Your task to perform on an android device: turn off notifications settings in the gmail app Image 0: 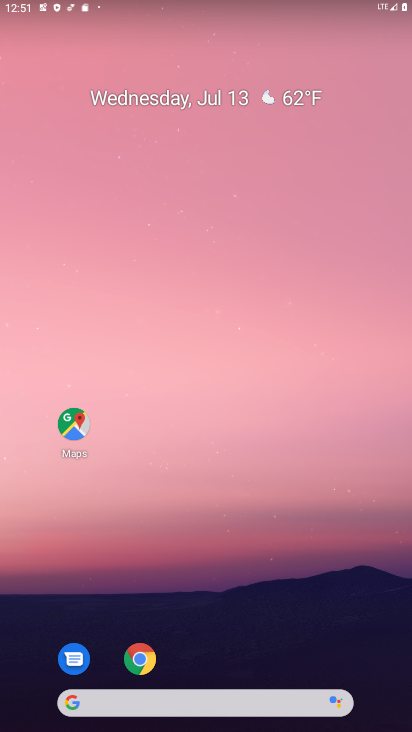
Step 0: drag from (202, 729) to (221, 54)
Your task to perform on an android device: turn off notifications settings in the gmail app Image 1: 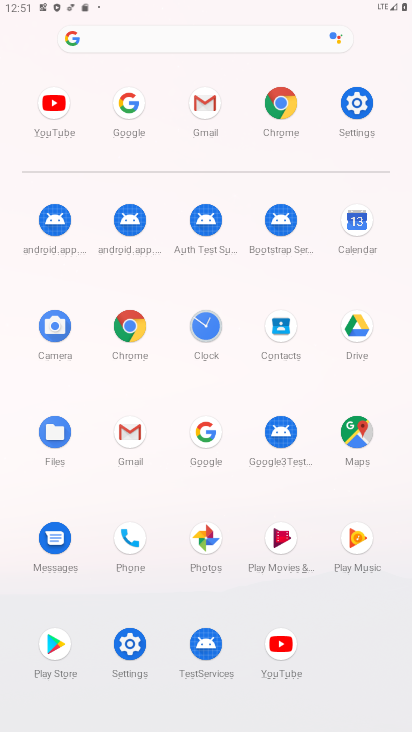
Step 1: click (129, 433)
Your task to perform on an android device: turn off notifications settings in the gmail app Image 2: 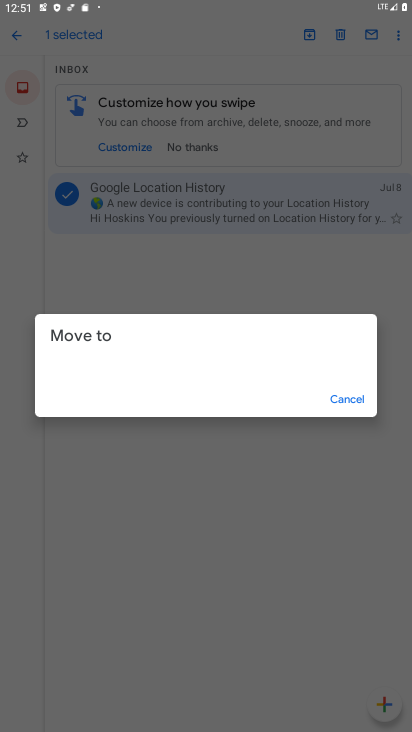
Step 2: click (354, 399)
Your task to perform on an android device: turn off notifications settings in the gmail app Image 3: 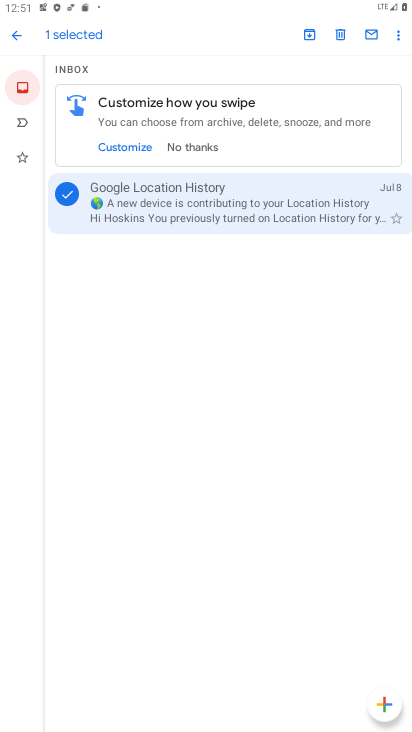
Step 3: click (18, 33)
Your task to perform on an android device: turn off notifications settings in the gmail app Image 4: 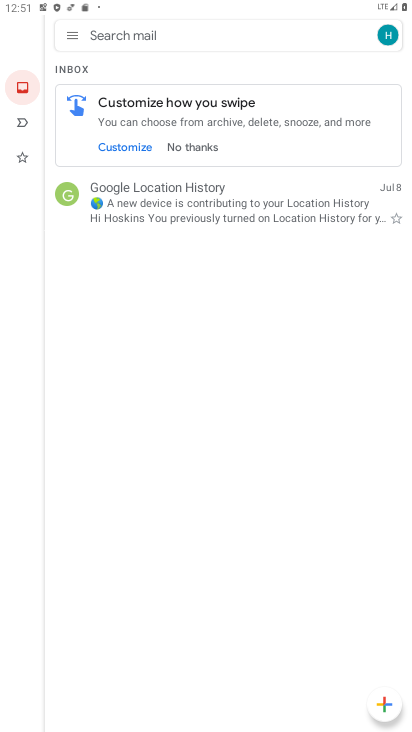
Step 4: click (73, 32)
Your task to perform on an android device: turn off notifications settings in the gmail app Image 5: 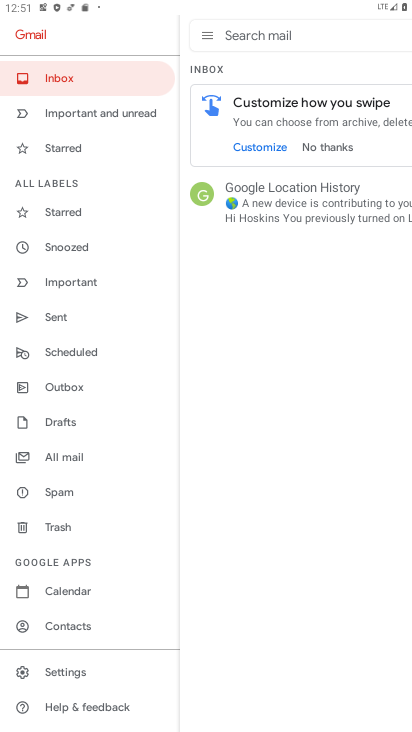
Step 5: click (59, 670)
Your task to perform on an android device: turn off notifications settings in the gmail app Image 6: 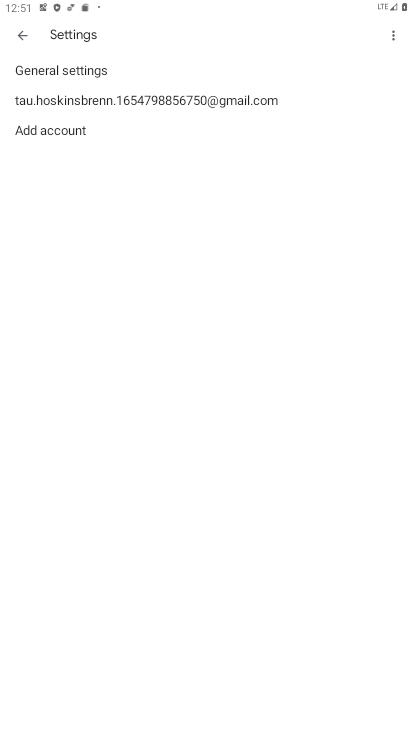
Step 6: click (116, 101)
Your task to perform on an android device: turn off notifications settings in the gmail app Image 7: 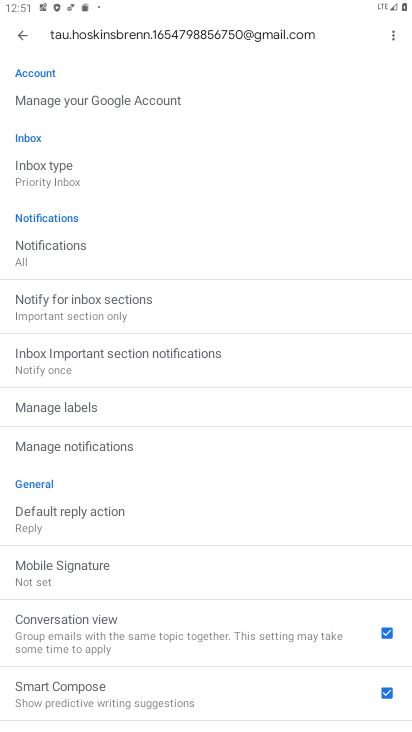
Step 7: click (39, 249)
Your task to perform on an android device: turn off notifications settings in the gmail app Image 8: 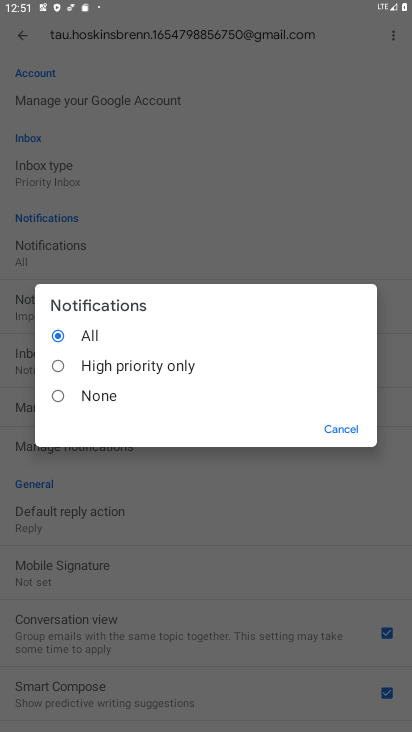
Step 8: click (52, 394)
Your task to perform on an android device: turn off notifications settings in the gmail app Image 9: 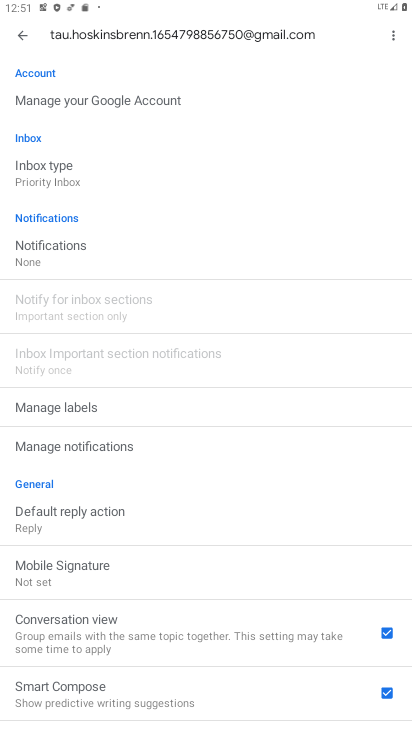
Step 9: task complete